Your task to perform on an android device: turn on airplane mode Image 0: 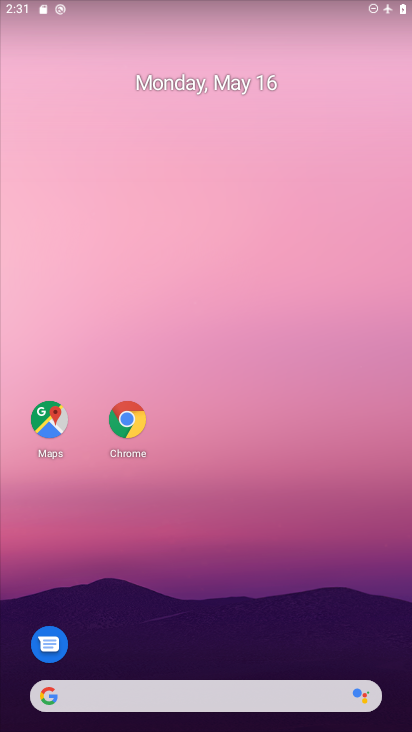
Step 0: drag from (160, 622) to (151, 366)
Your task to perform on an android device: turn on airplane mode Image 1: 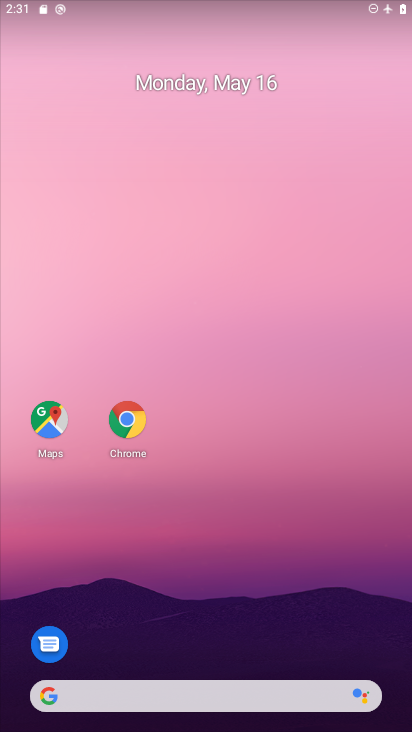
Step 1: drag from (201, 619) to (182, 268)
Your task to perform on an android device: turn on airplane mode Image 2: 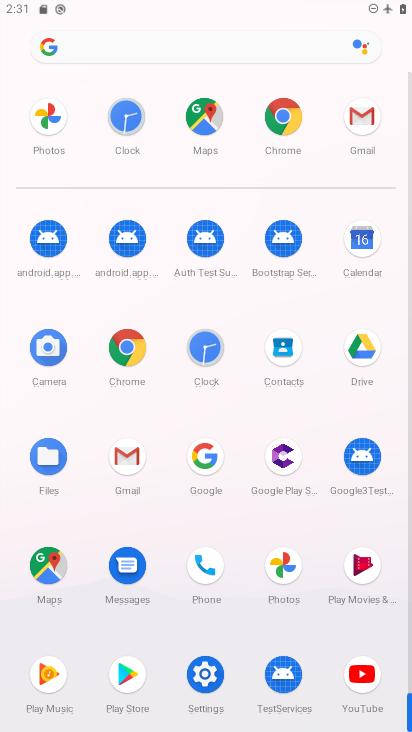
Step 2: click (210, 668)
Your task to perform on an android device: turn on airplane mode Image 3: 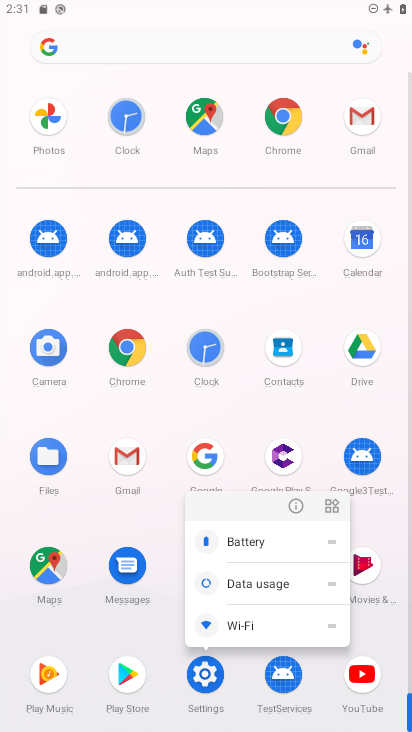
Step 3: click (306, 506)
Your task to perform on an android device: turn on airplane mode Image 4: 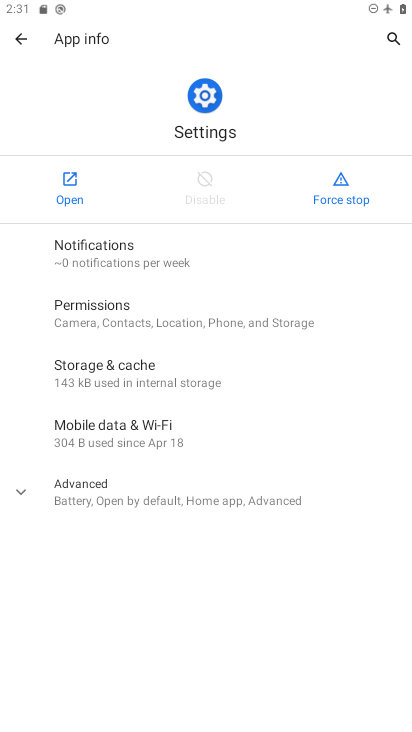
Step 4: click (74, 180)
Your task to perform on an android device: turn on airplane mode Image 5: 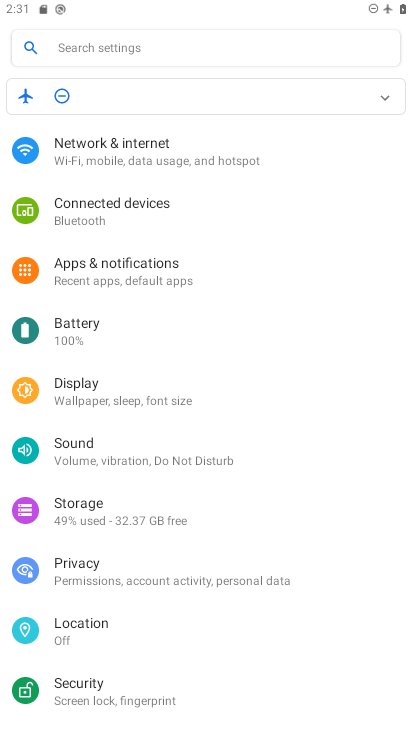
Step 5: click (189, 150)
Your task to perform on an android device: turn on airplane mode Image 6: 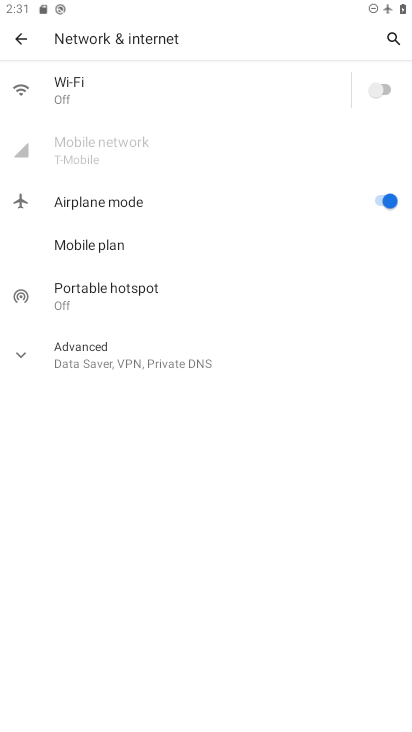
Step 6: task complete